Your task to perform on an android device: turn off translation in the chrome app Image 0: 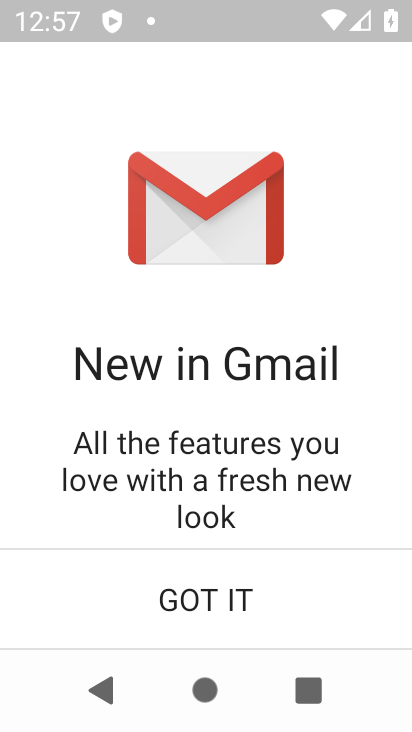
Step 0: press home button
Your task to perform on an android device: turn off translation in the chrome app Image 1: 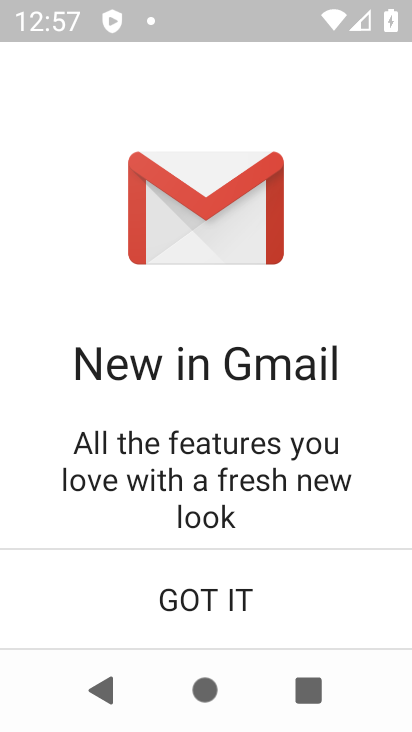
Step 1: press home button
Your task to perform on an android device: turn off translation in the chrome app Image 2: 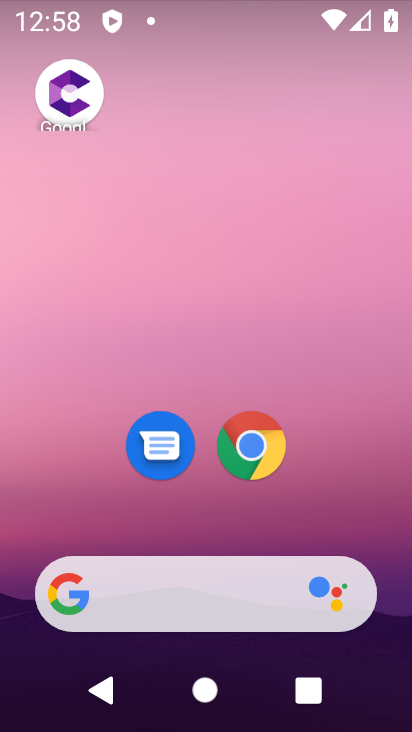
Step 2: click (254, 441)
Your task to perform on an android device: turn off translation in the chrome app Image 3: 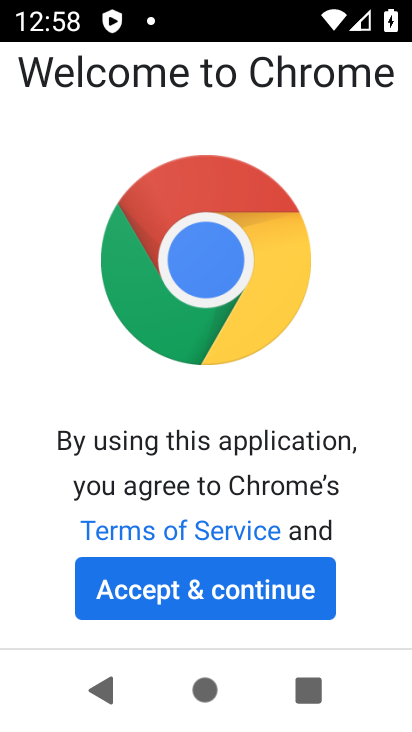
Step 3: click (191, 602)
Your task to perform on an android device: turn off translation in the chrome app Image 4: 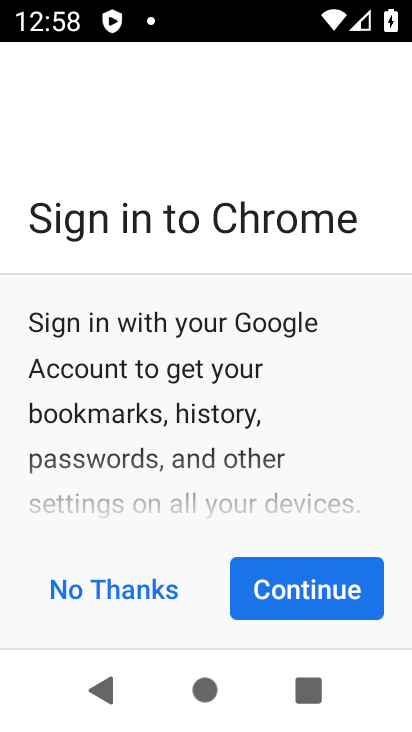
Step 4: click (308, 579)
Your task to perform on an android device: turn off translation in the chrome app Image 5: 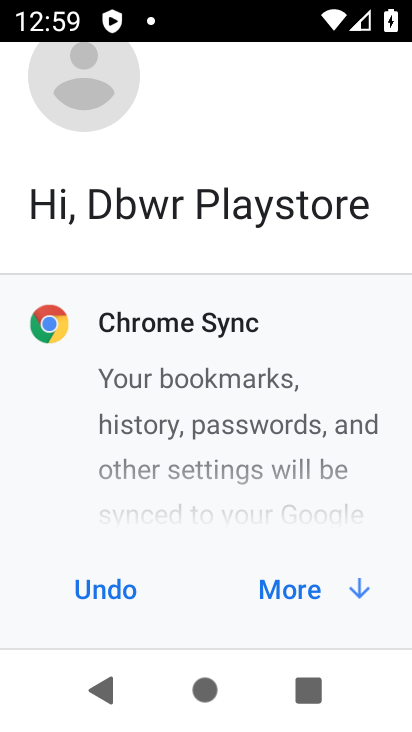
Step 5: click (105, 597)
Your task to perform on an android device: turn off translation in the chrome app Image 6: 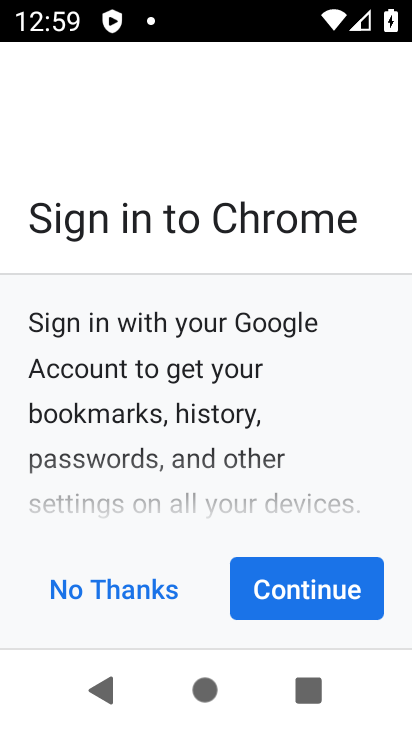
Step 6: click (143, 598)
Your task to perform on an android device: turn off translation in the chrome app Image 7: 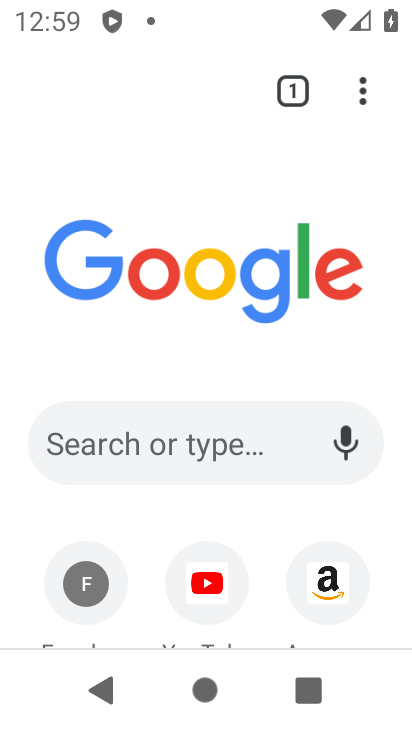
Step 7: click (366, 92)
Your task to perform on an android device: turn off translation in the chrome app Image 8: 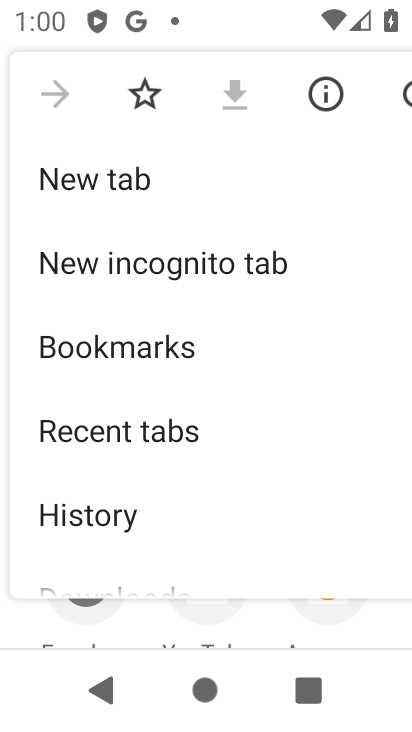
Step 8: drag from (213, 504) to (291, 30)
Your task to perform on an android device: turn off translation in the chrome app Image 9: 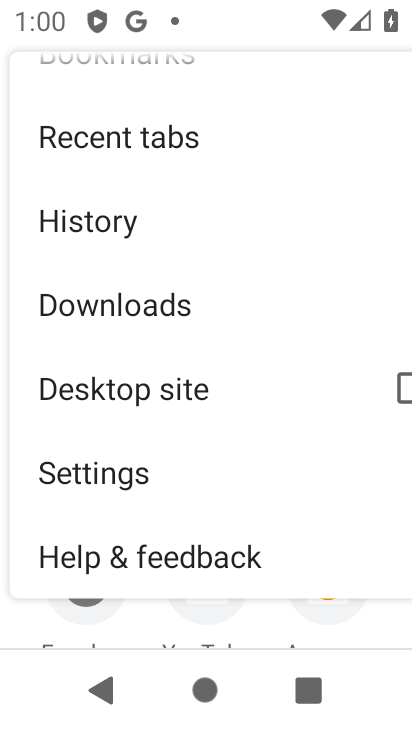
Step 9: click (122, 480)
Your task to perform on an android device: turn off translation in the chrome app Image 10: 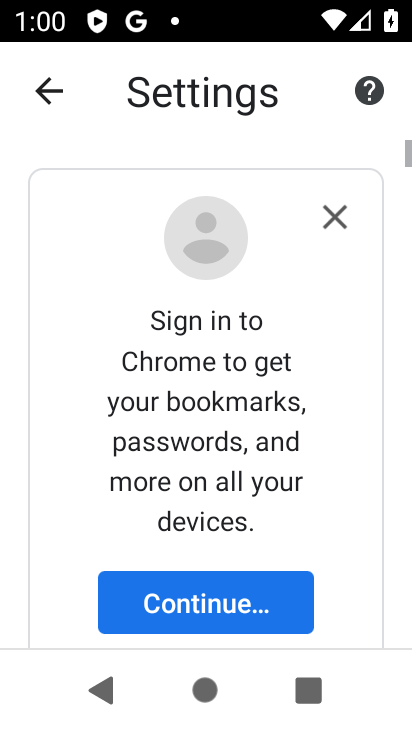
Step 10: drag from (203, 514) to (218, 226)
Your task to perform on an android device: turn off translation in the chrome app Image 11: 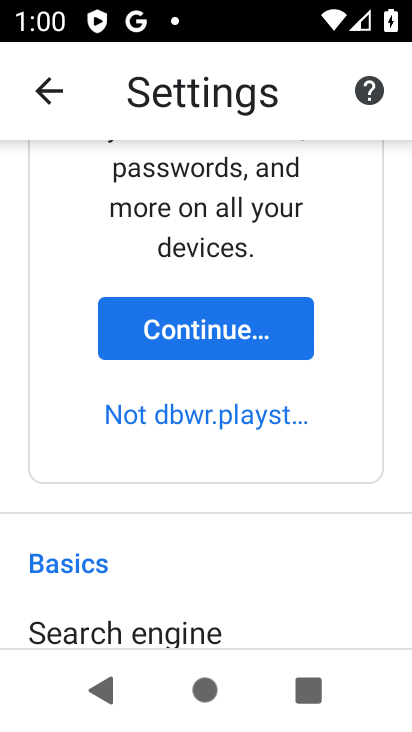
Step 11: drag from (194, 593) to (216, 407)
Your task to perform on an android device: turn off translation in the chrome app Image 12: 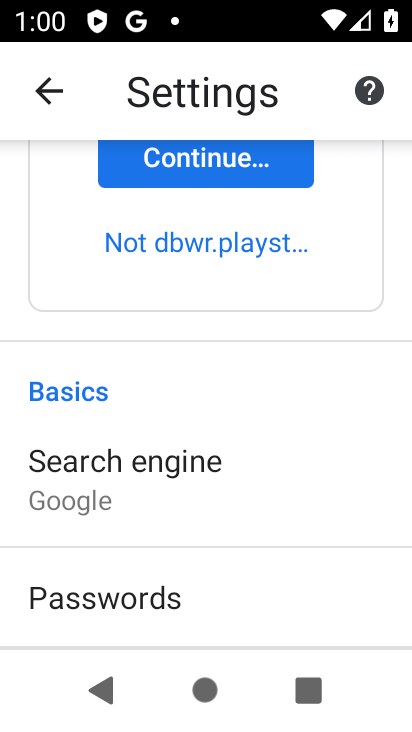
Step 12: drag from (167, 565) to (340, 30)
Your task to perform on an android device: turn off translation in the chrome app Image 13: 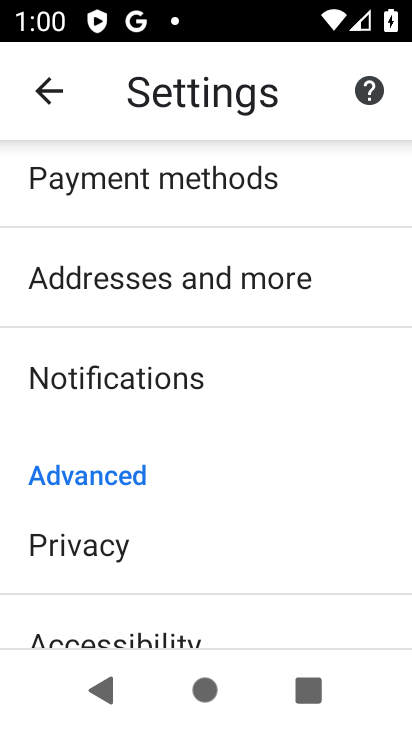
Step 13: drag from (190, 528) to (263, 14)
Your task to perform on an android device: turn off translation in the chrome app Image 14: 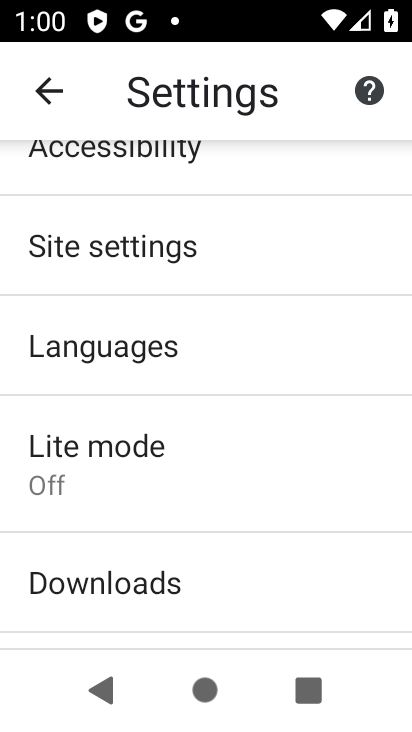
Step 14: click (146, 265)
Your task to perform on an android device: turn off translation in the chrome app Image 15: 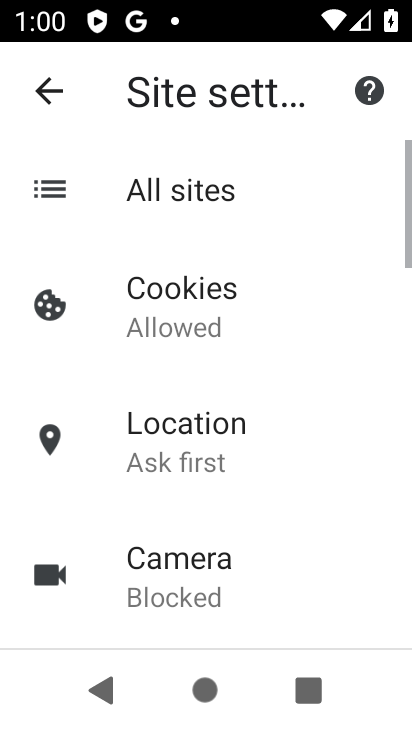
Step 15: drag from (185, 491) to (266, 104)
Your task to perform on an android device: turn off translation in the chrome app Image 16: 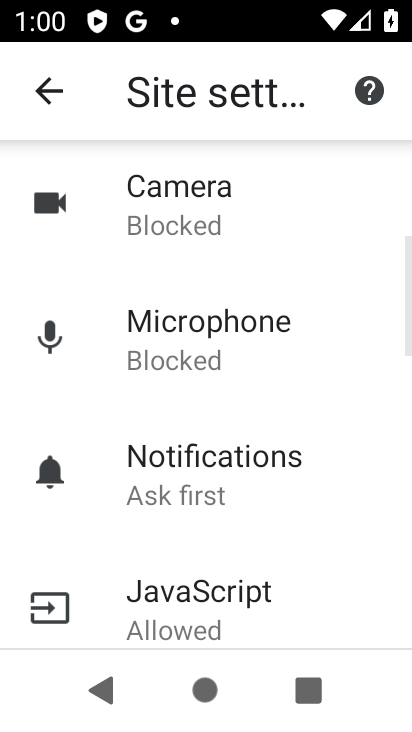
Step 16: click (177, 574)
Your task to perform on an android device: turn off translation in the chrome app Image 17: 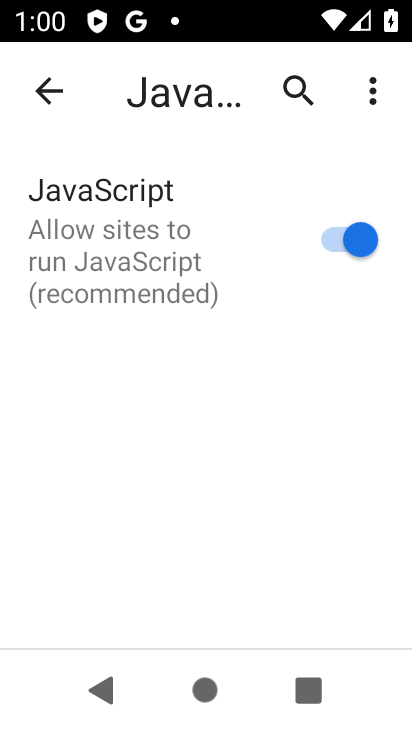
Step 17: click (37, 95)
Your task to perform on an android device: turn off translation in the chrome app Image 18: 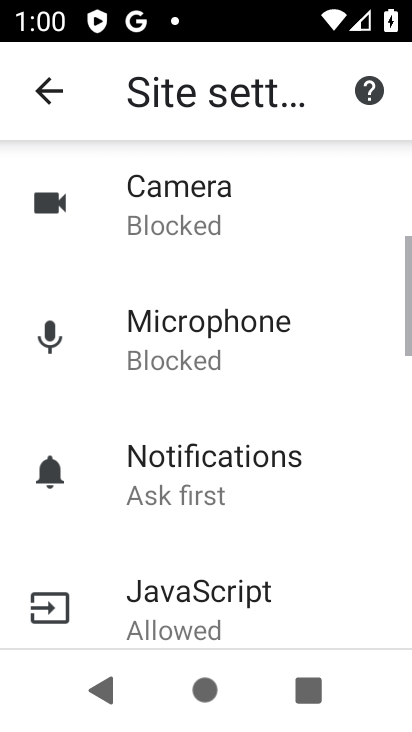
Step 18: click (37, 95)
Your task to perform on an android device: turn off translation in the chrome app Image 19: 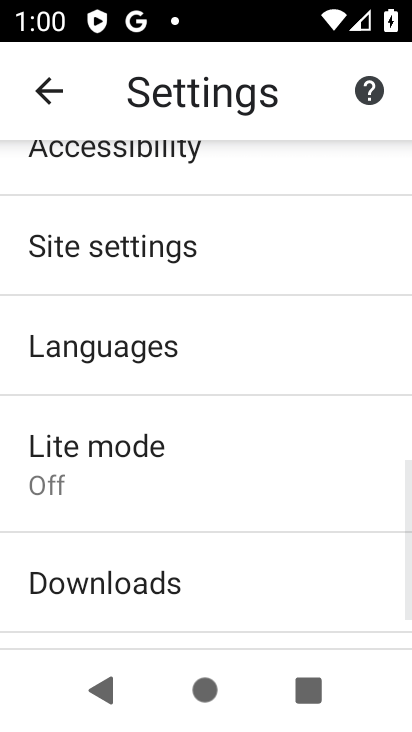
Step 19: click (148, 357)
Your task to perform on an android device: turn off translation in the chrome app Image 20: 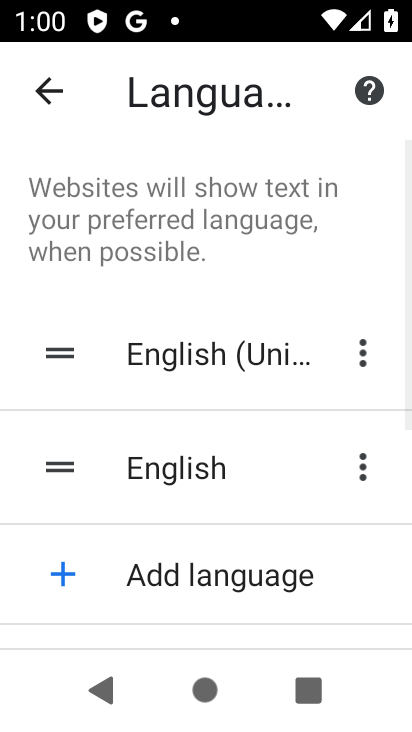
Step 20: drag from (271, 530) to (318, 126)
Your task to perform on an android device: turn off translation in the chrome app Image 21: 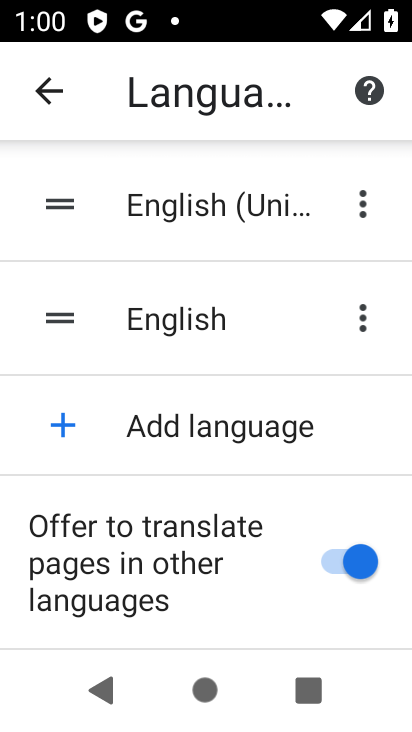
Step 21: click (338, 560)
Your task to perform on an android device: turn off translation in the chrome app Image 22: 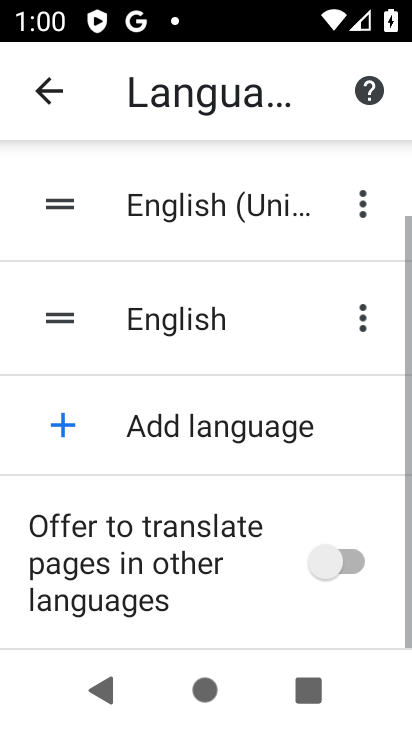
Step 22: task complete